Your task to perform on an android device: change notification settings in the gmail app Image 0: 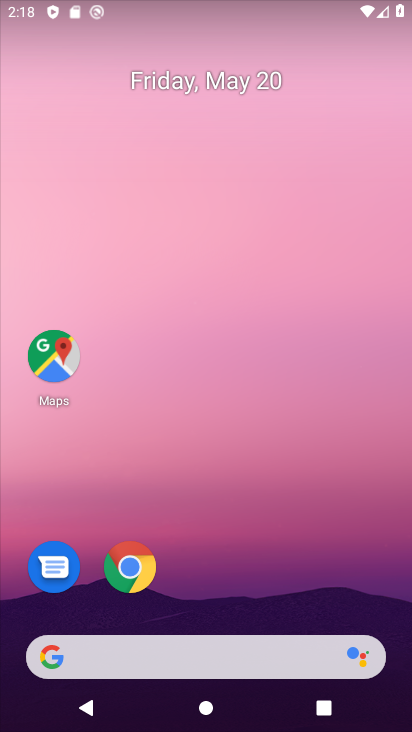
Step 0: click (209, 251)
Your task to perform on an android device: change notification settings in the gmail app Image 1: 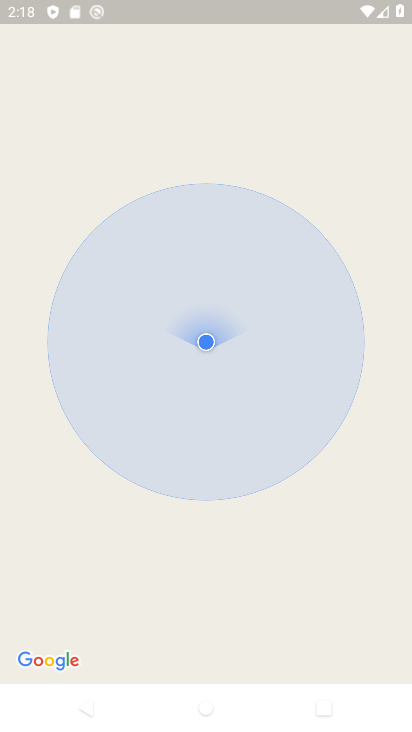
Step 1: press home button
Your task to perform on an android device: change notification settings in the gmail app Image 2: 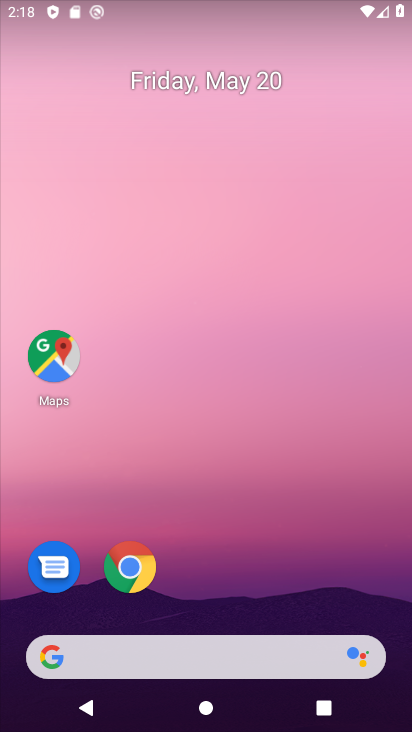
Step 2: drag from (190, 626) to (217, 283)
Your task to perform on an android device: change notification settings in the gmail app Image 3: 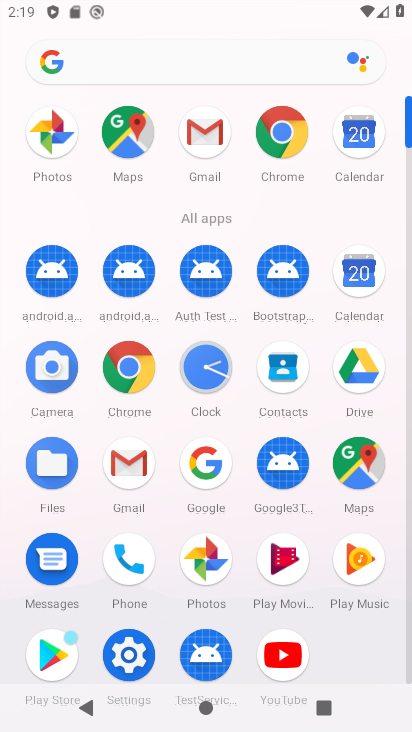
Step 3: click (208, 131)
Your task to perform on an android device: change notification settings in the gmail app Image 4: 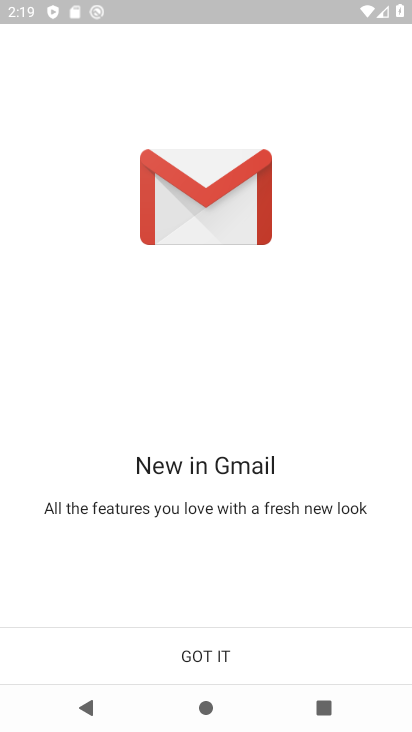
Step 4: click (194, 663)
Your task to perform on an android device: change notification settings in the gmail app Image 5: 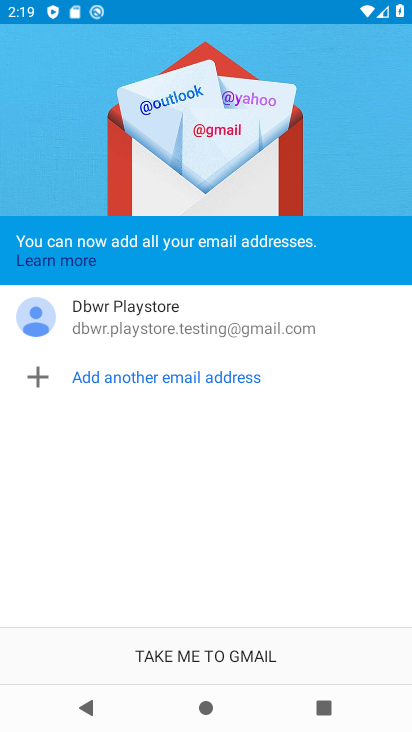
Step 5: click (193, 662)
Your task to perform on an android device: change notification settings in the gmail app Image 6: 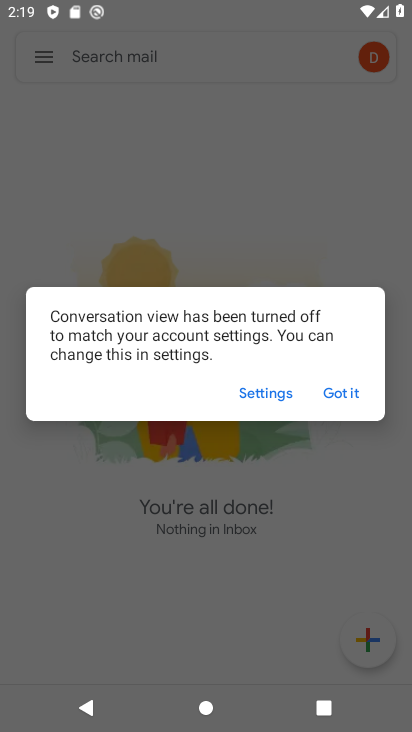
Step 6: click (357, 391)
Your task to perform on an android device: change notification settings in the gmail app Image 7: 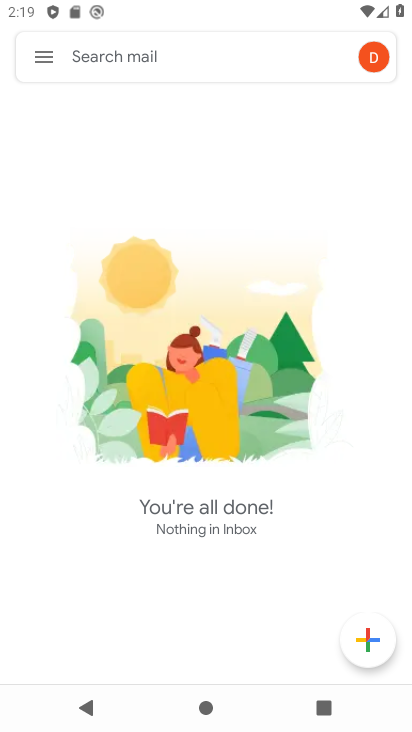
Step 7: click (45, 59)
Your task to perform on an android device: change notification settings in the gmail app Image 8: 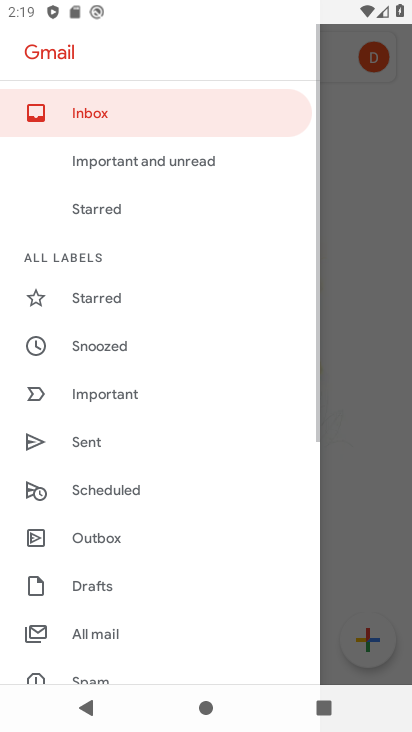
Step 8: drag from (97, 673) to (93, 332)
Your task to perform on an android device: change notification settings in the gmail app Image 9: 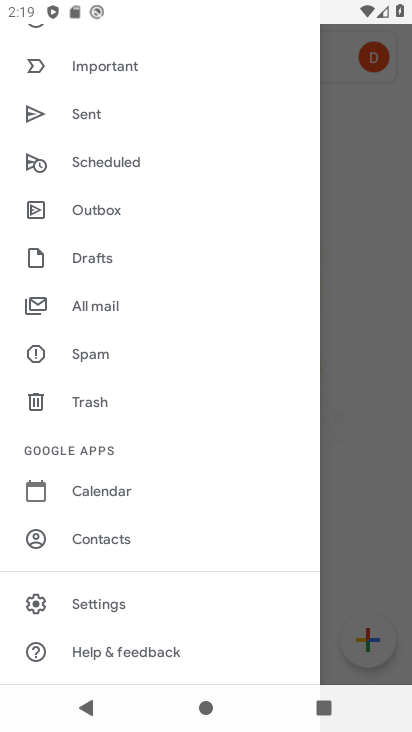
Step 9: click (100, 605)
Your task to perform on an android device: change notification settings in the gmail app Image 10: 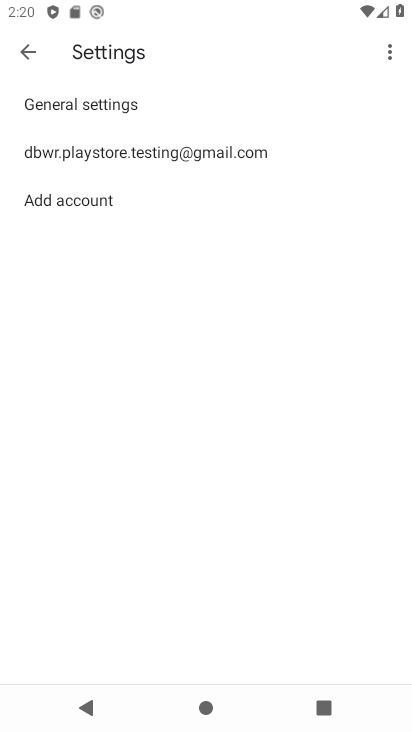
Step 10: click (119, 153)
Your task to perform on an android device: change notification settings in the gmail app Image 11: 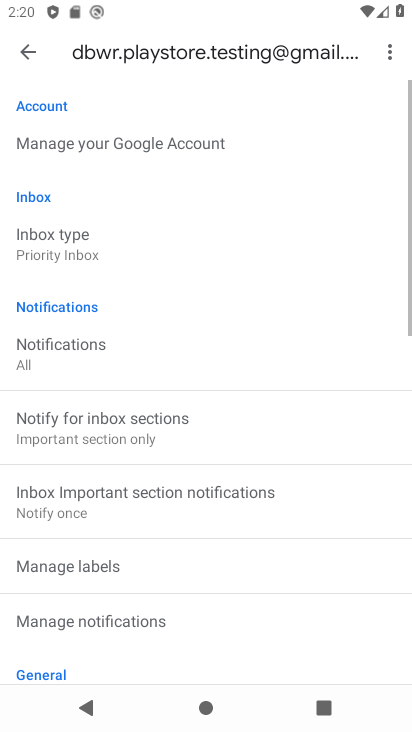
Step 11: click (91, 338)
Your task to perform on an android device: change notification settings in the gmail app Image 12: 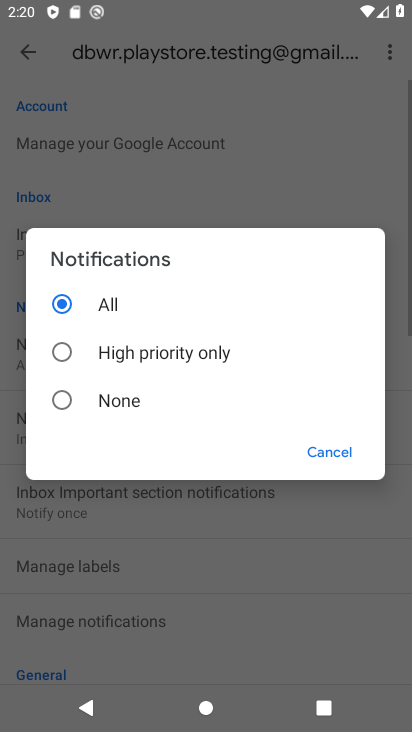
Step 12: click (102, 351)
Your task to perform on an android device: change notification settings in the gmail app Image 13: 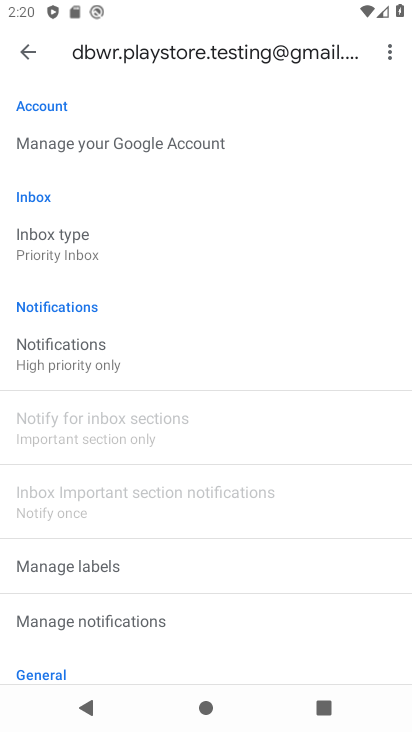
Step 13: task complete